Your task to perform on an android device: change the clock display to digital Image 0: 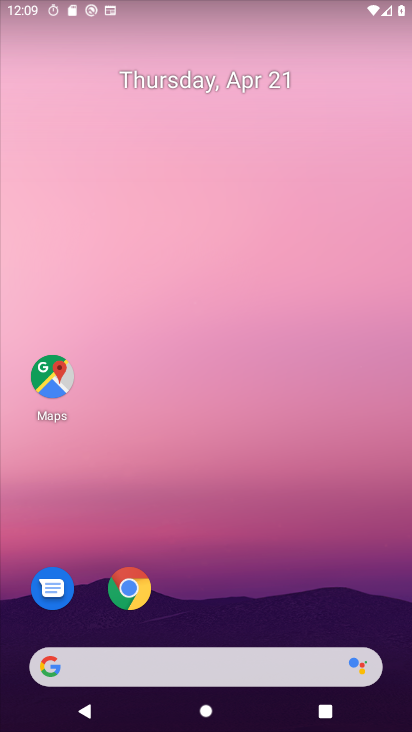
Step 0: drag from (217, 625) to (261, 2)
Your task to perform on an android device: change the clock display to digital Image 1: 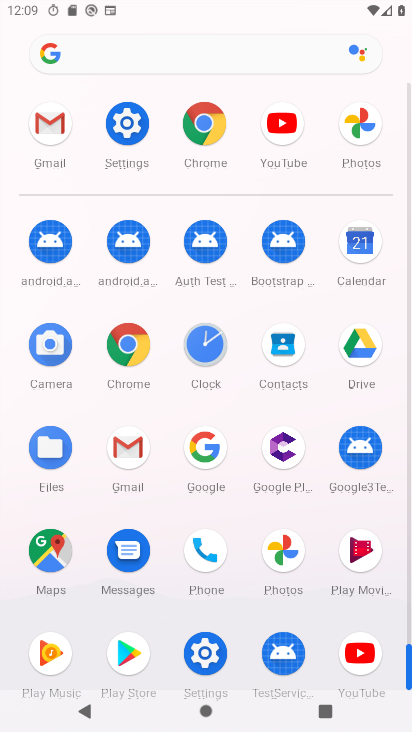
Step 1: click (203, 339)
Your task to perform on an android device: change the clock display to digital Image 2: 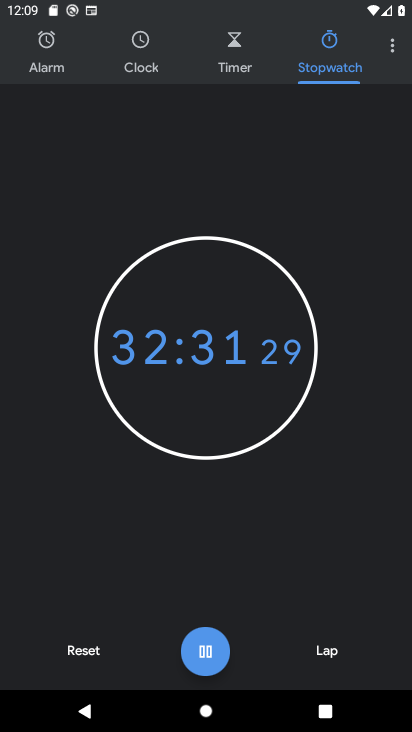
Step 2: click (81, 649)
Your task to perform on an android device: change the clock display to digital Image 3: 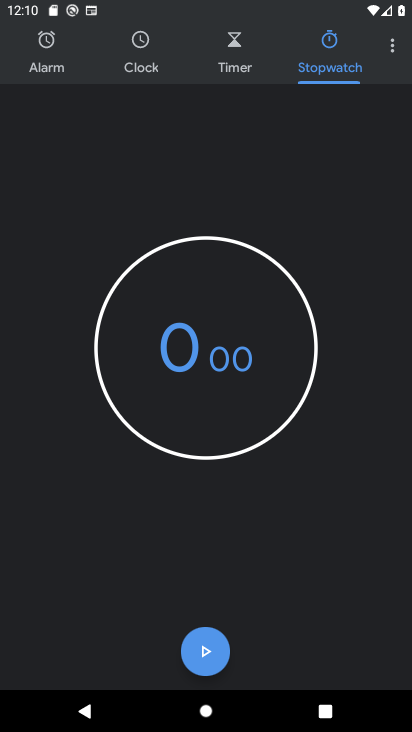
Step 3: click (390, 44)
Your task to perform on an android device: change the clock display to digital Image 4: 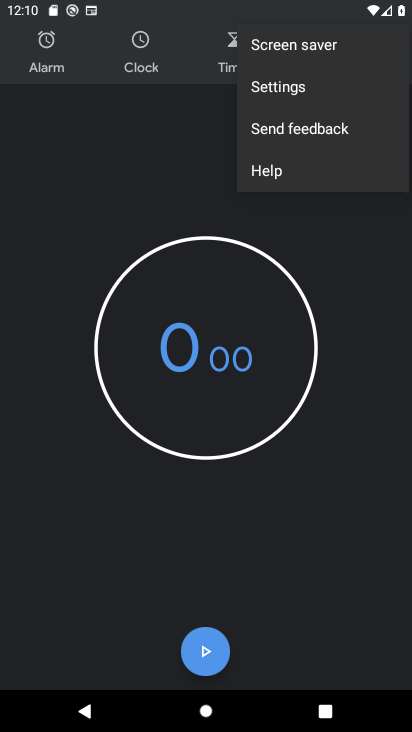
Step 4: click (311, 83)
Your task to perform on an android device: change the clock display to digital Image 5: 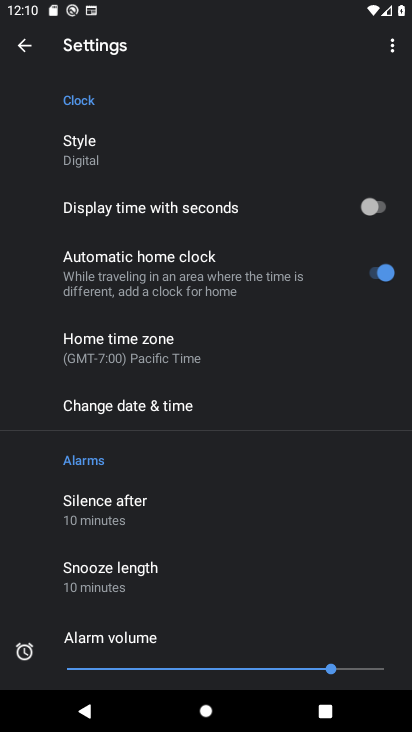
Step 5: click (108, 154)
Your task to perform on an android device: change the clock display to digital Image 6: 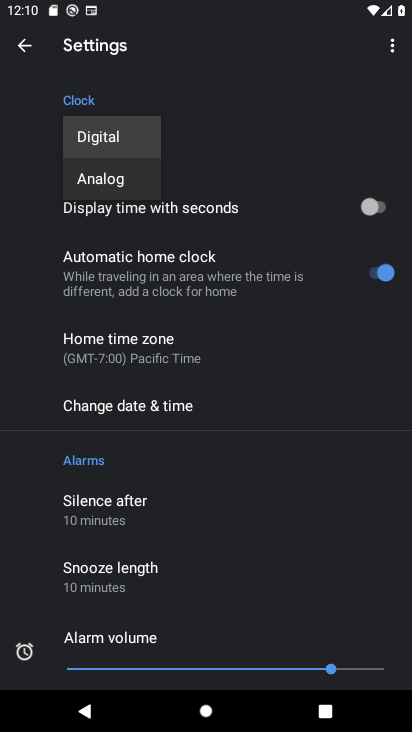
Step 6: click (137, 140)
Your task to perform on an android device: change the clock display to digital Image 7: 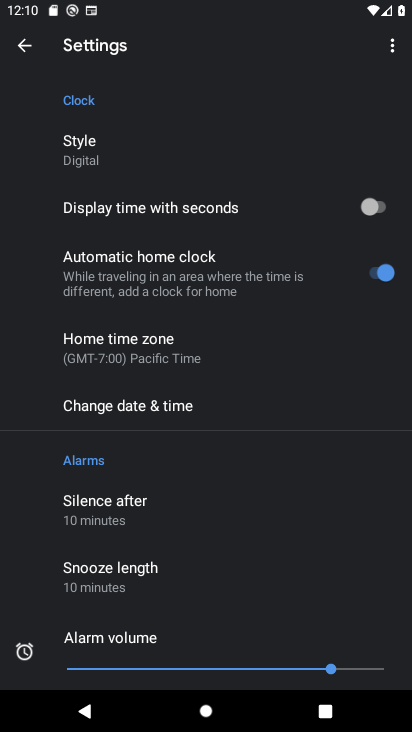
Step 7: task complete